Your task to perform on an android device: turn on airplane mode Image 0: 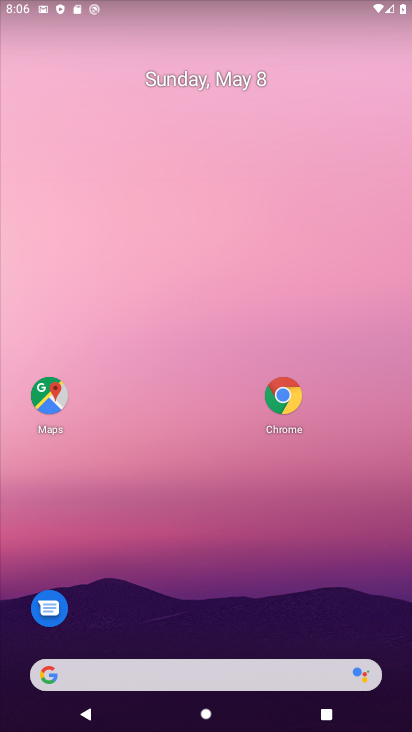
Step 0: drag from (170, 675) to (407, 13)
Your task to perform on an android device: turn on airplane mode Image 1: 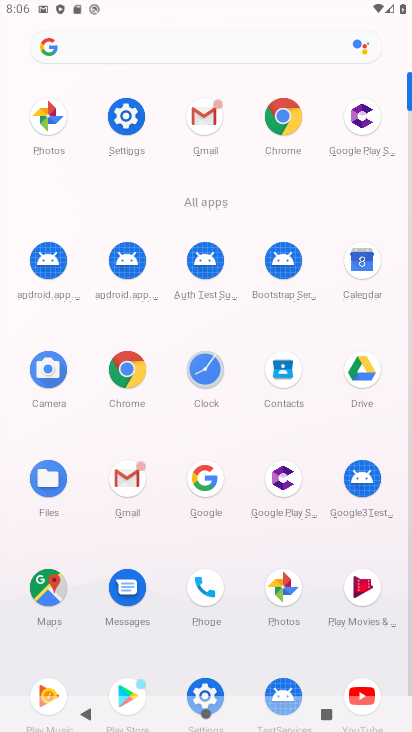
Step 1: click (124, 122)
Your task to perform on an android device: turn on airplane mode Image 2: 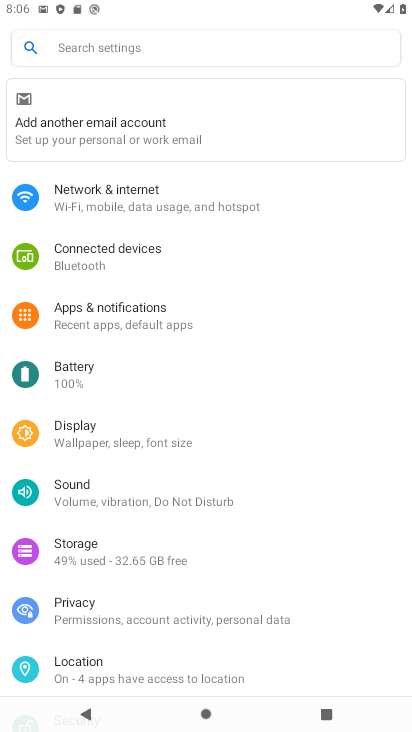
Step 2: click (169, 201)
Your task to perform on an android device: turn on airplane mode Image 3: 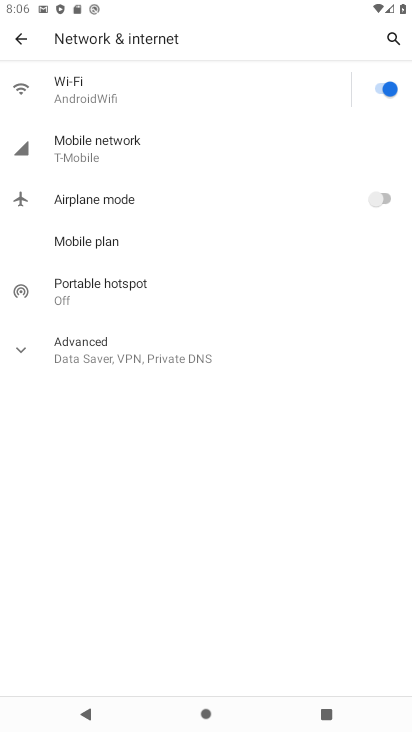
Step 3: click (388, 198)
Your task to perform on an android device: turn on airplane mode Image 4: 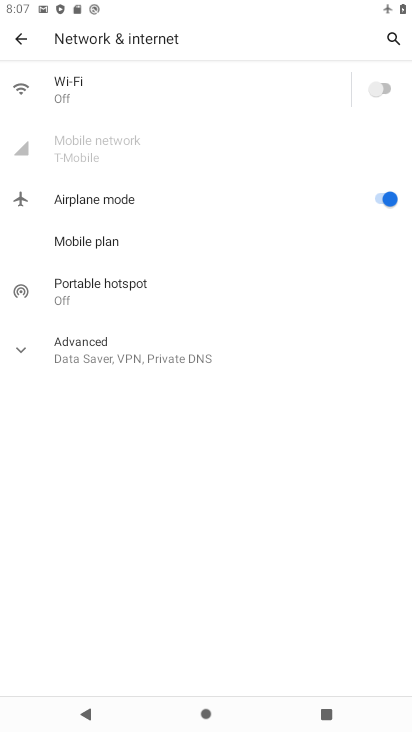
Step 4: task complete